Your task to perform on an android device: Open maps Image 0: 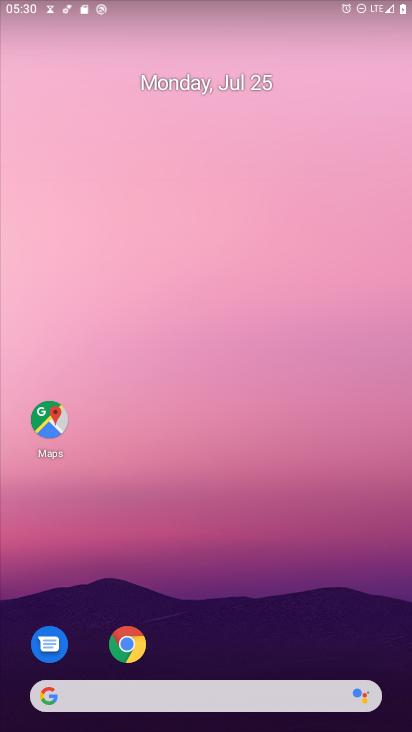
Step 0: press home button
Your task to perform on an android device: Open maps Image 1: 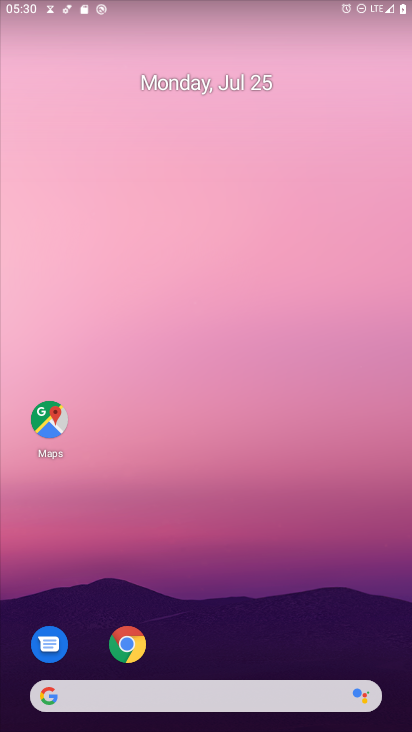
Step 1: click (56, 418)
Your task to perform on an android device: Open maps Image 2: 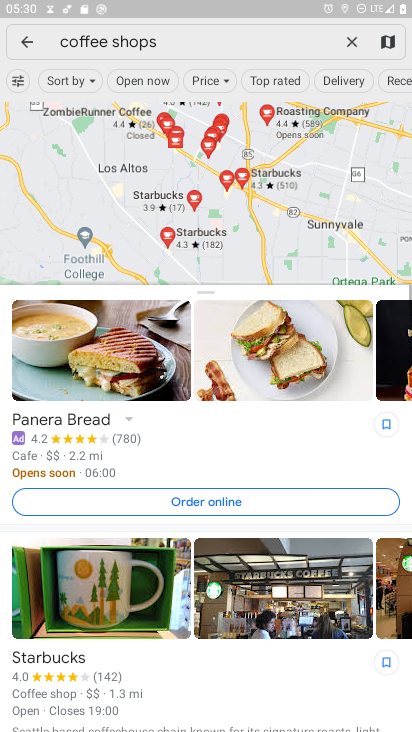
Step 2: click (24, 40)
Your task to perform on an android device: Open maps Image 3: 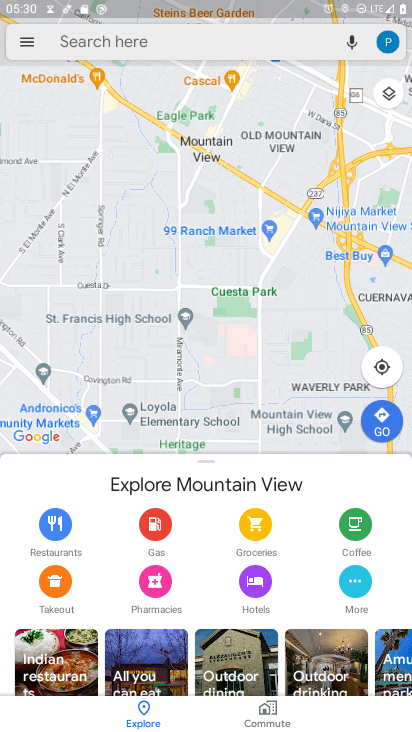
Step 3: task complete